Your task to perform on an android device: What is the recent news? Image 0: 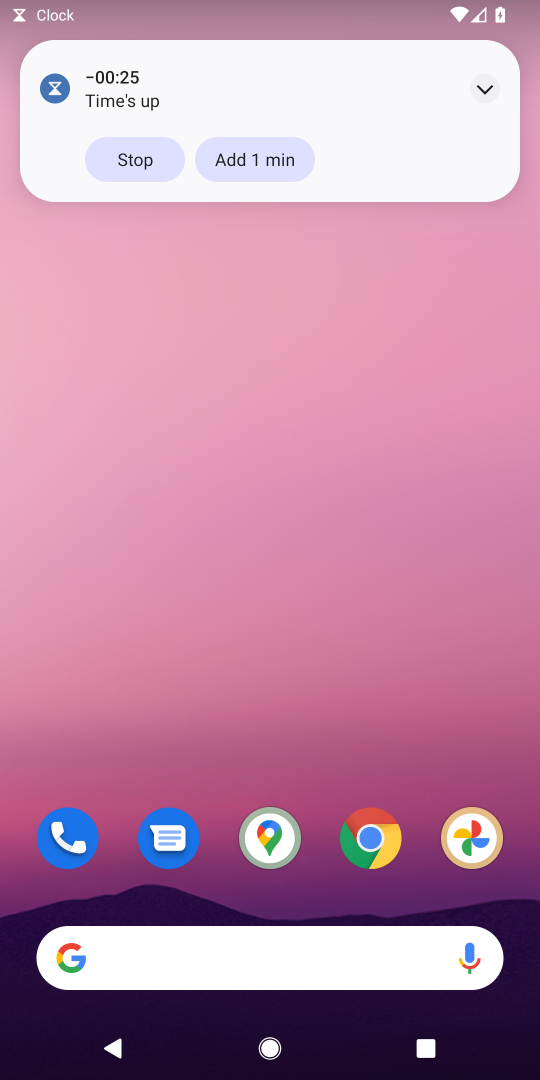
Step 0: click (388, 861)
Your task to perform on an android device: What is the recent news? Image 1: 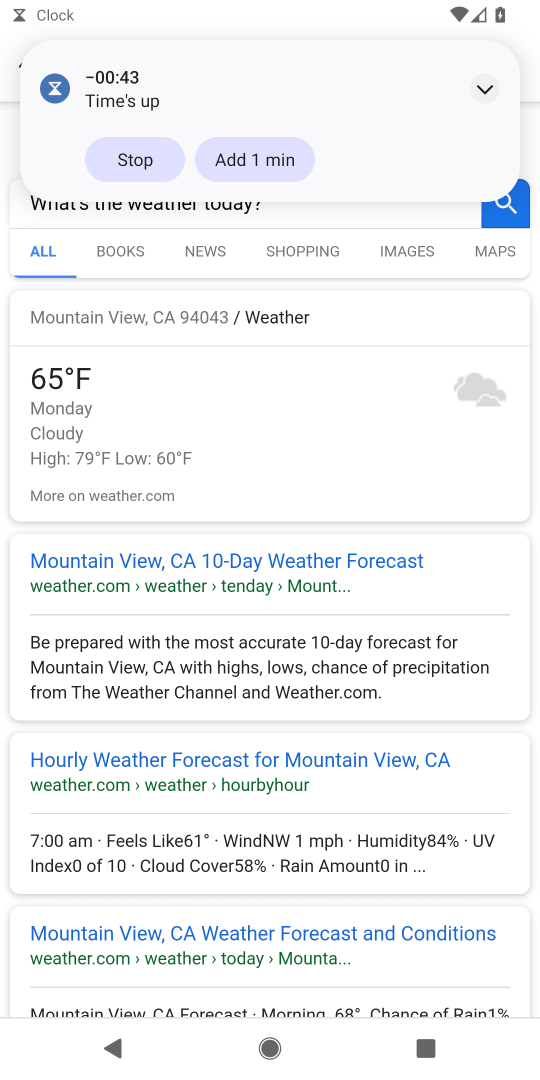
Step 1: click (135, 154)
Your task to perform on an android device: What is the recent news? Image 2: 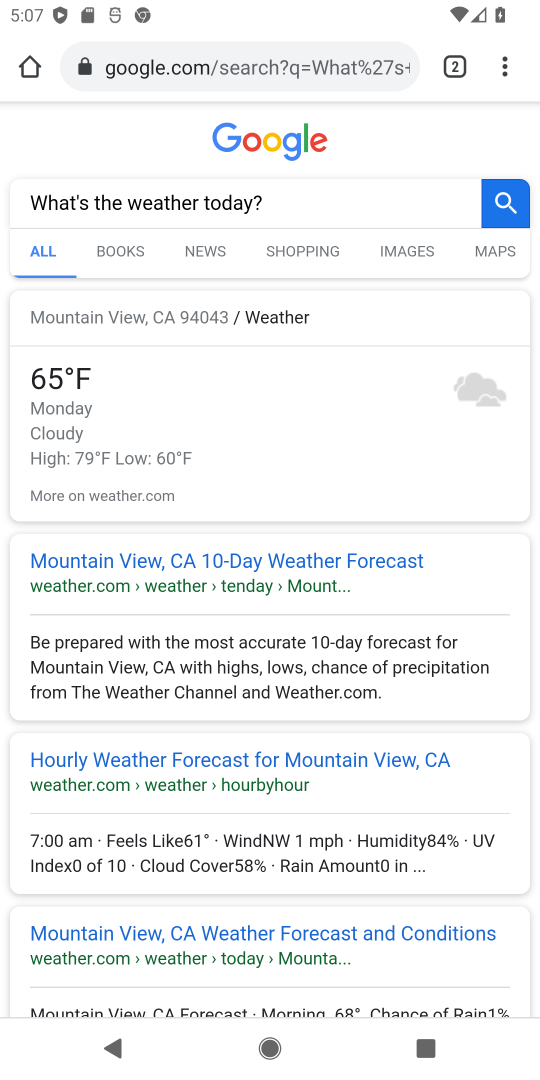
Step 2: click (263, 69)
Your task to perform on an android device: What is the recent news? Image 3: 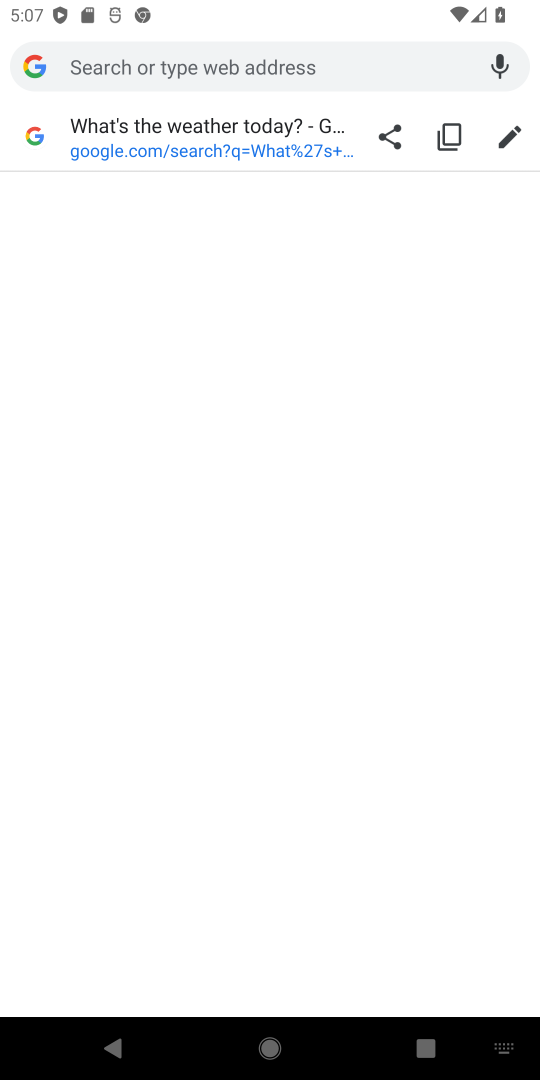
Step 3: type "What is the recent news?"
Your task to perform on an android device: What is the recent news? Image 4: 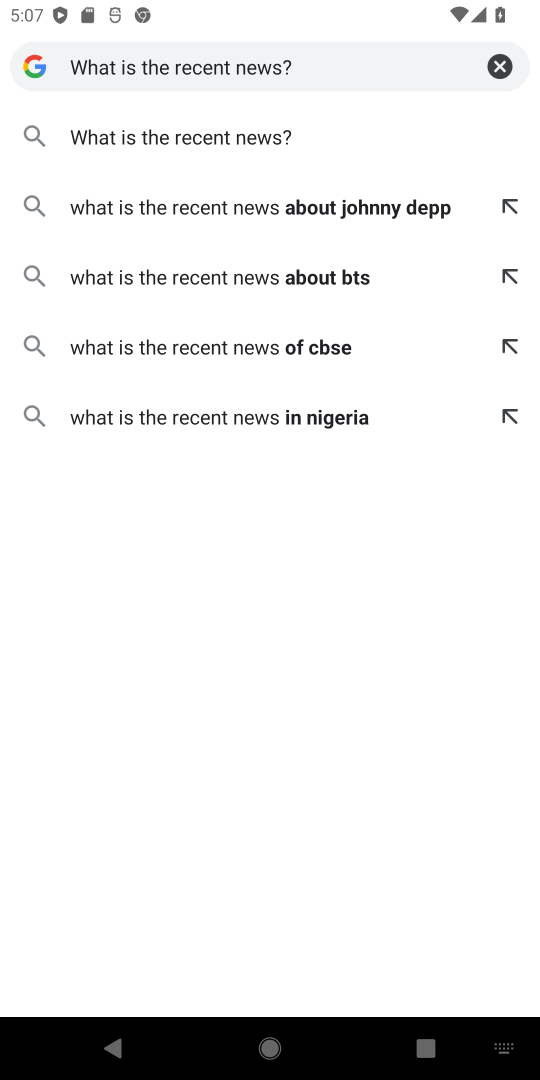
Step 4: click (301, 170)
Your task to perform on an android device: What is the recent news? Image 5: 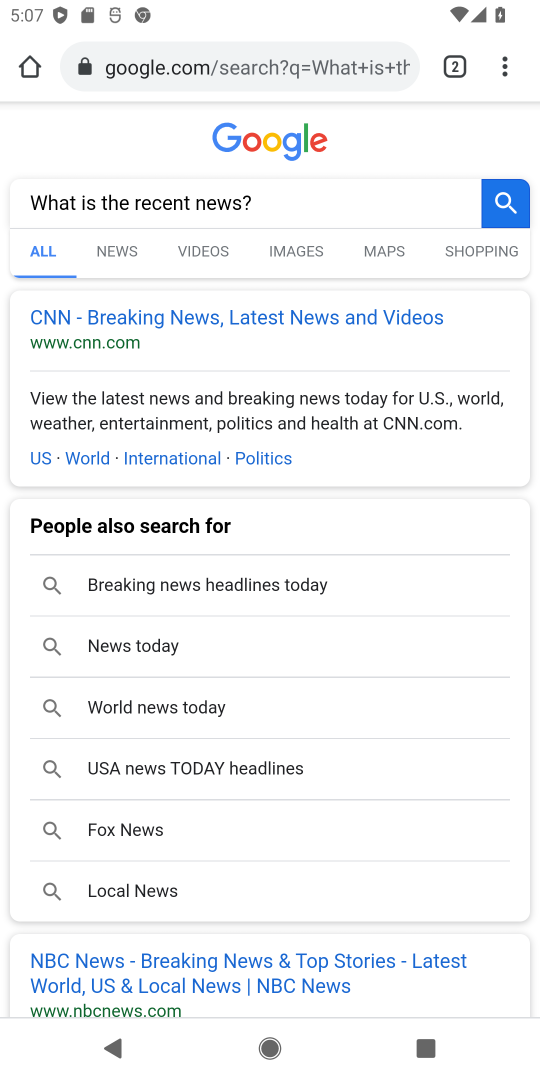
Step 5: click (326, 313)
Your task to perform on an android device: What is the recent news? Image 6: 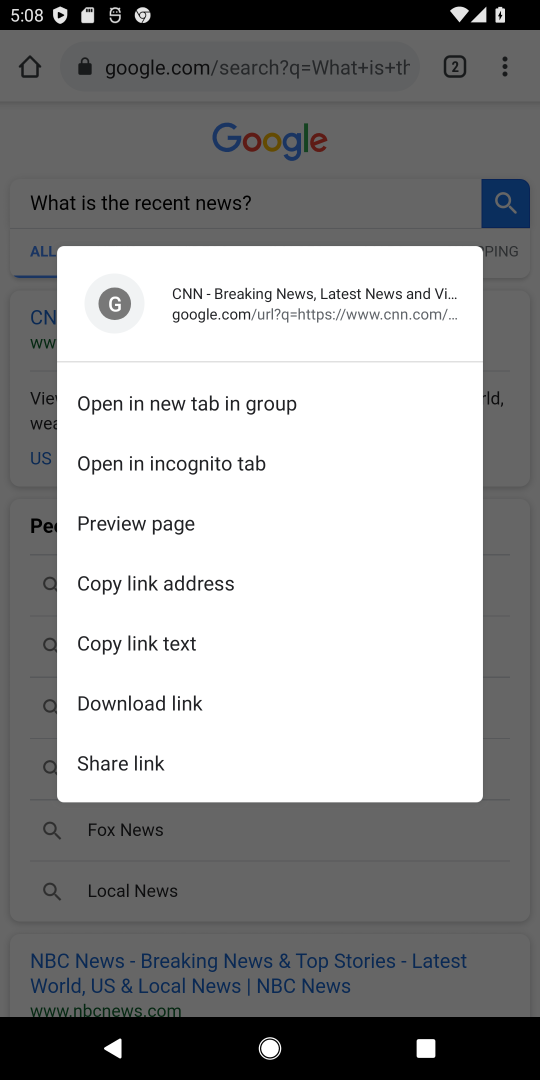
Step 6: click (515, 741)
Your task to perform on an android device: What is the recent news? Image 7: 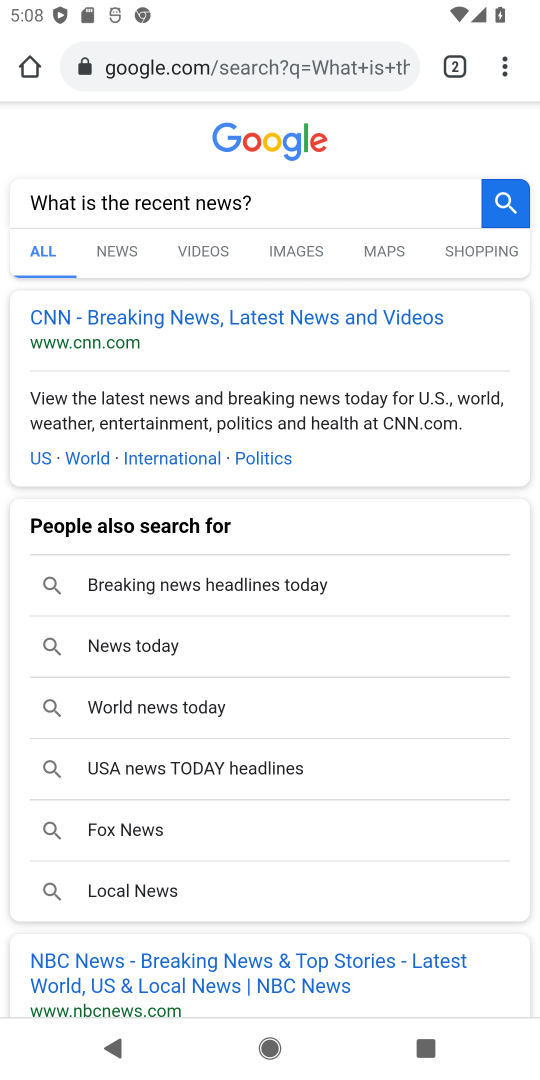
Step 7: click (187, 307)
Your task to perform on an android device: What is the recent news? Image 8: 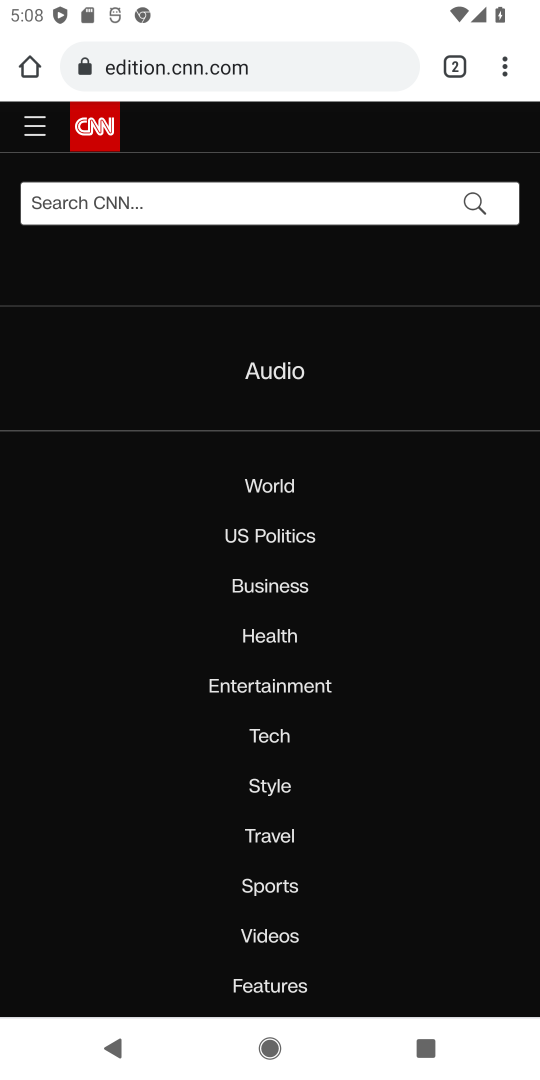
Step 8: task complete